Your task to perform on an android device: Go to internet settings Image 0: 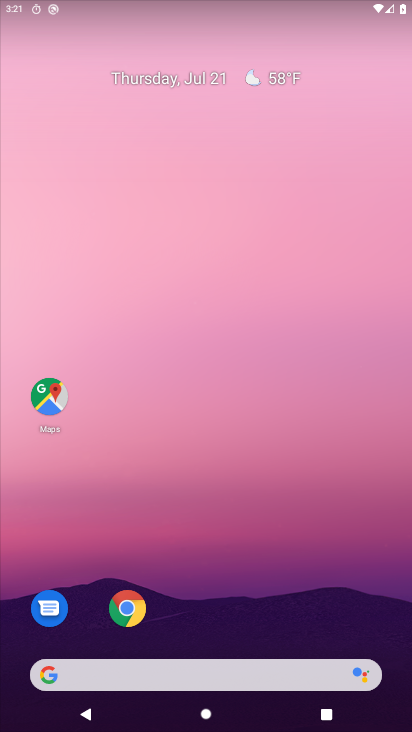
Step 0: drag from (223, 635) to (221, 117)
Your task to perform on an android device: Go to internet settings Image 1: 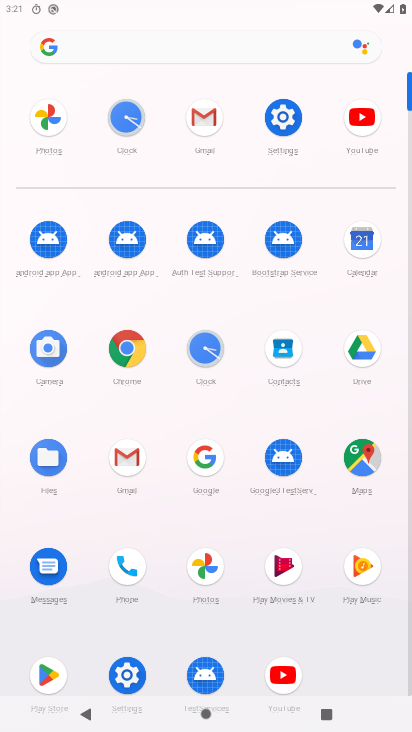
Step 1: click (282, 111)
Your task to perform on an android device: Go to internet settings Image 2: 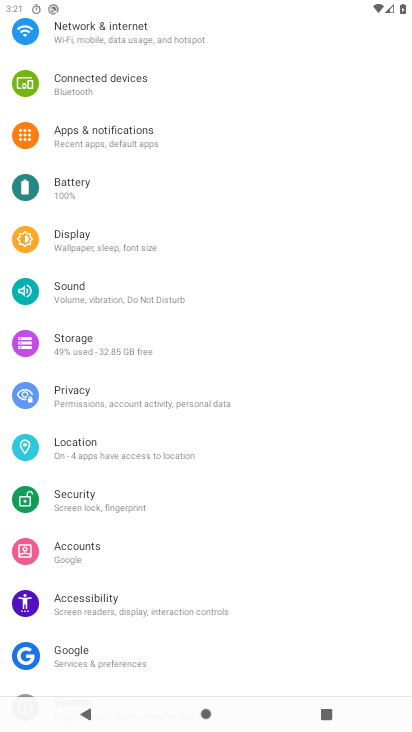
Step 2: click (141, 34)
Your task to perform on an android device: Go to internet settings Image 3: 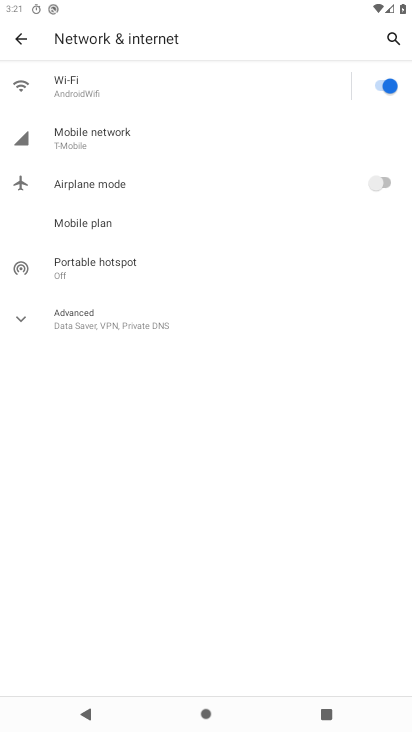
Step 3: click (28, 314)
Your task to perform on an android device: Go to internet settings Image 4: 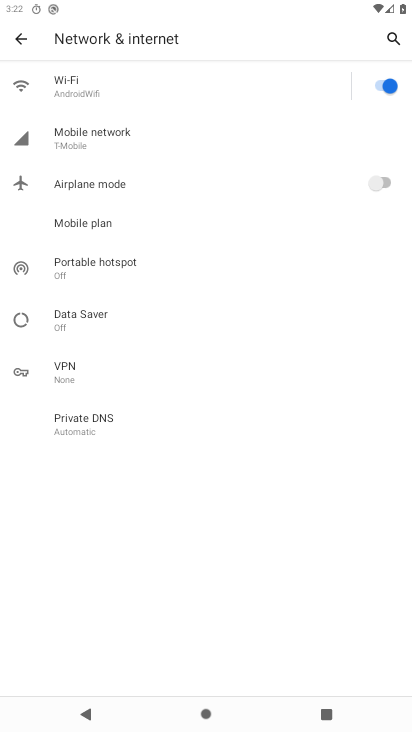
Step 4: task complete